Your task to perform on an android device: snooze an email in the gmail app Image 0: 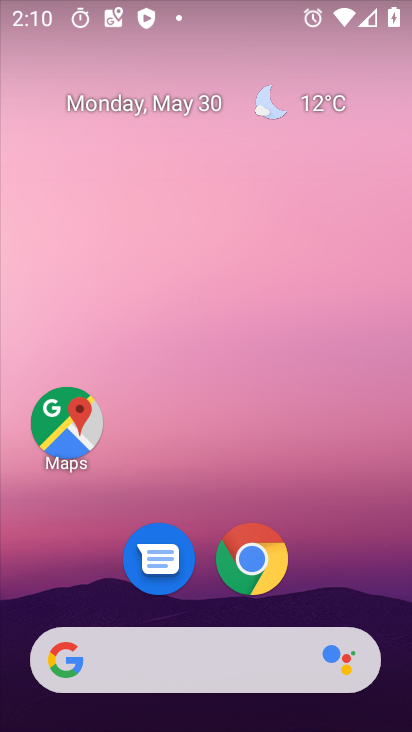
Step 0: drag from (199, 421) to (258, 10)
Your task to perform on an android device: snooze an email in the gmail app Image 1: 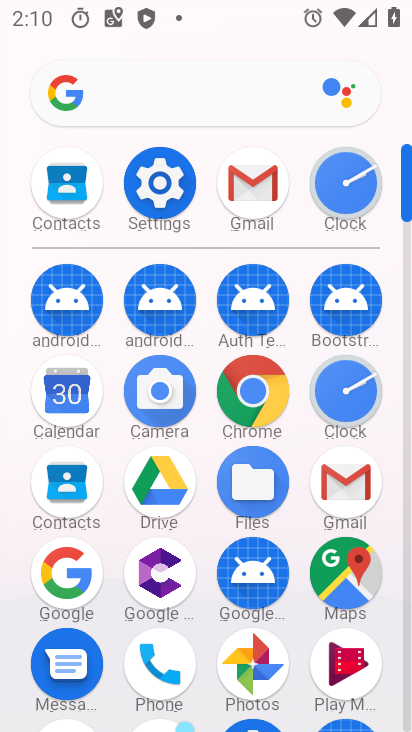
Step 1: click (235, 175)
Your task to perform on an android device: snooze an email in the gmail app Image 2: 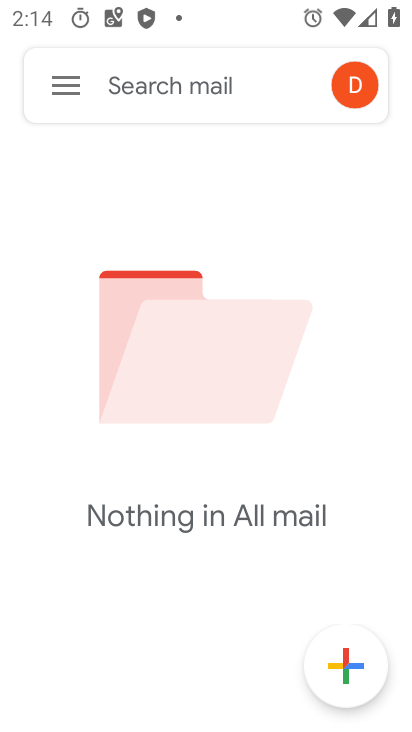
Step 2: click (67, 78)
Your task to perform on an android device: snooze an email in the gmail app Image 3: 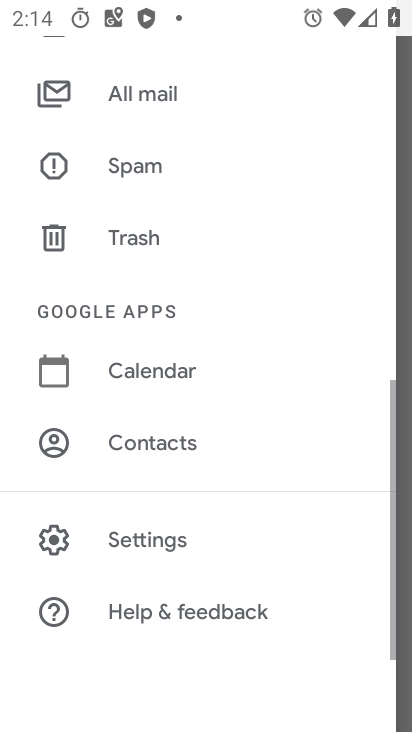
Step 3: task complete